Your task to perform on an android device: turn on the 24-hour format for clock Image 0: 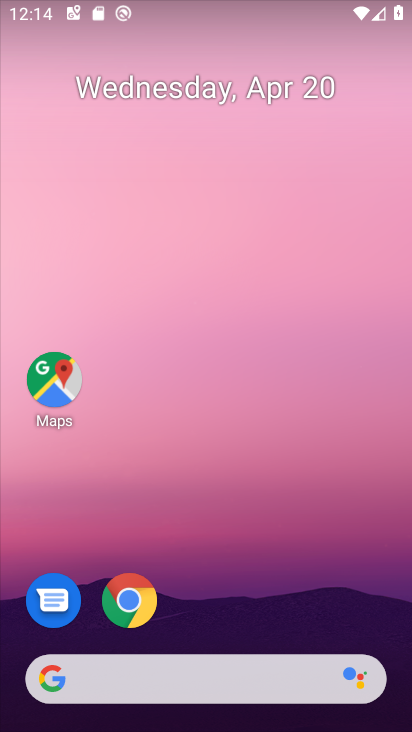
Step 0: drag from (390, 204) to (390, 116)
Your task to perform on an android device: turn on the 24-hour format for clock Image 1: 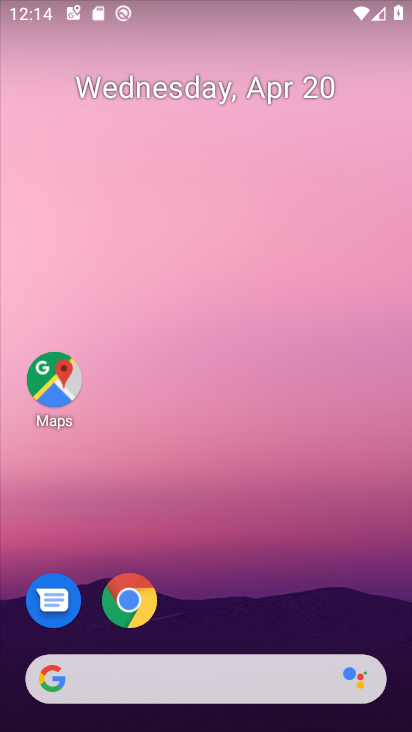
Step 1: drag from (316, 582) to (325, 119)
Your task to perform on an android device: turn on the 24-hour format for clock Image 2: 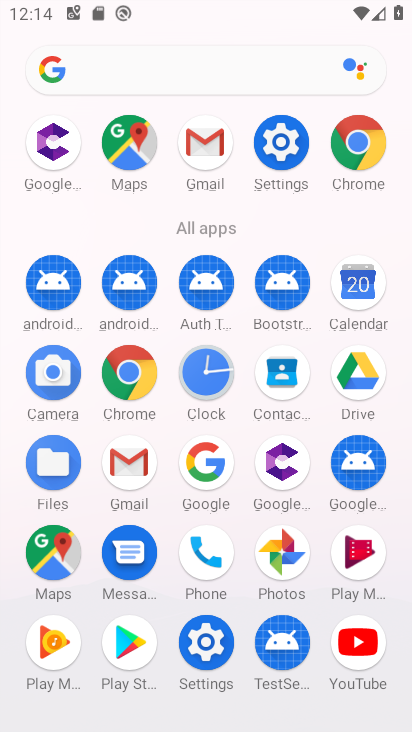
Step 2: click (198, 384)
Your task to perform on an android device: turn on the 24-hour format for clock Image 3: 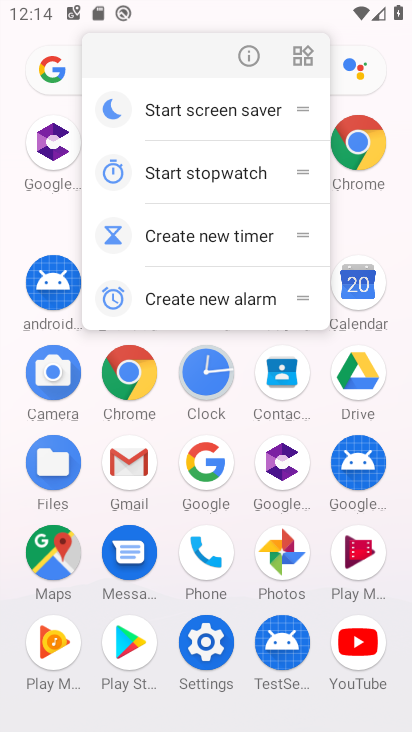
Step 3: click (196, 370)
Your task to perform on an android device: turn on the 24-hour format for clock Image 4: 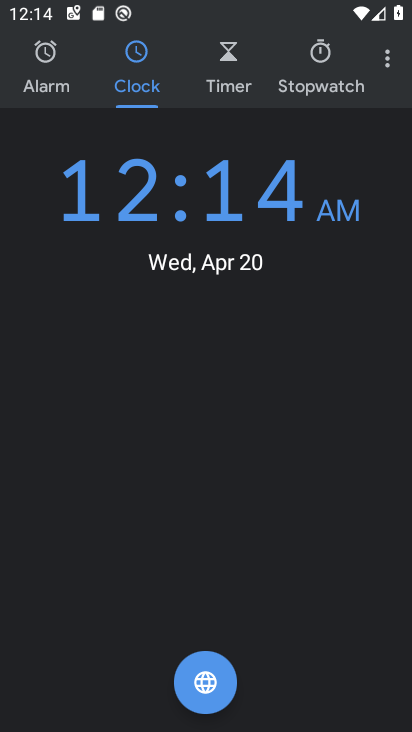
Step 4: click (389, 62)
Your task to perform on an android device: turn on the 24-hour format for clock Image 5: 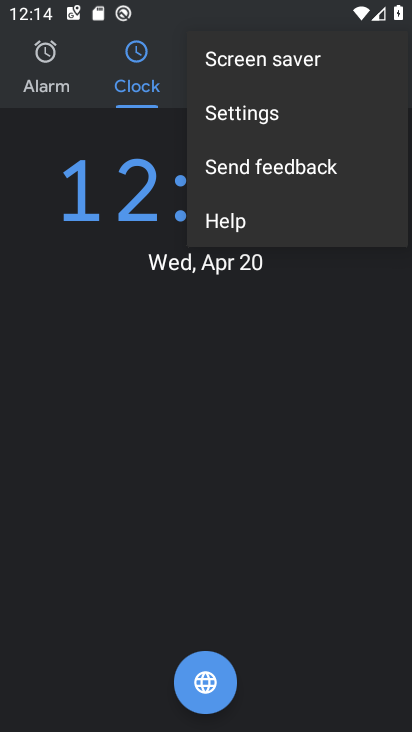
Step 5: click (257, 116)
Your task to perform on an android device: turn on the 24-hour format for clock Image 6: 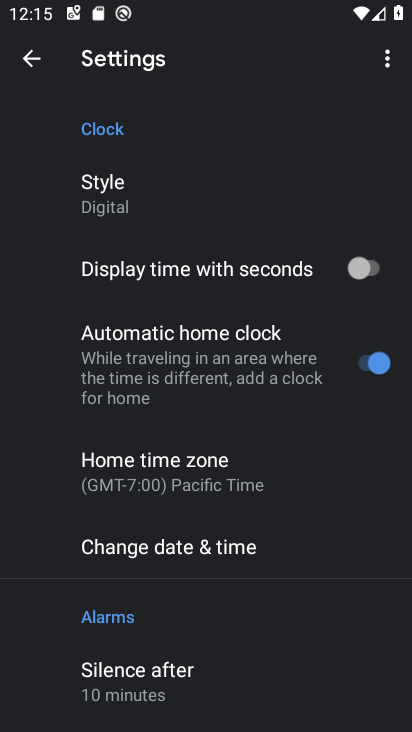
Step 6: click (236, 552)
Your task to perform on an android device: turn on the 24-hour format for clock Image 7: 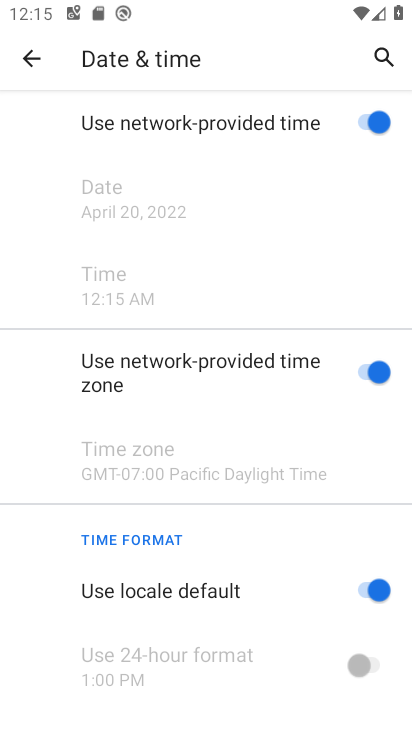
Step 7: click (366, 587)
Your task to perform on an android device: turn on the 24-hour format for clock Image 8: 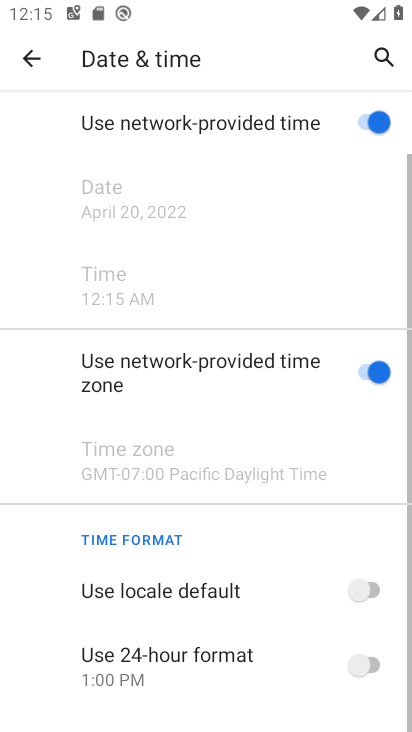
Step 8: click (374, 667)
Your task to perform on an android device: turn on the 24-hour format for clock Image 9: 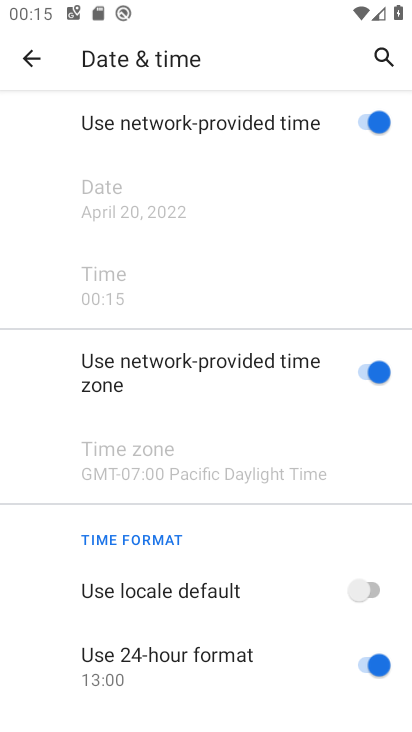
Step 9: task complete